Your task to perform on an android device: Open calendar and show me the second week of next month Image 0: 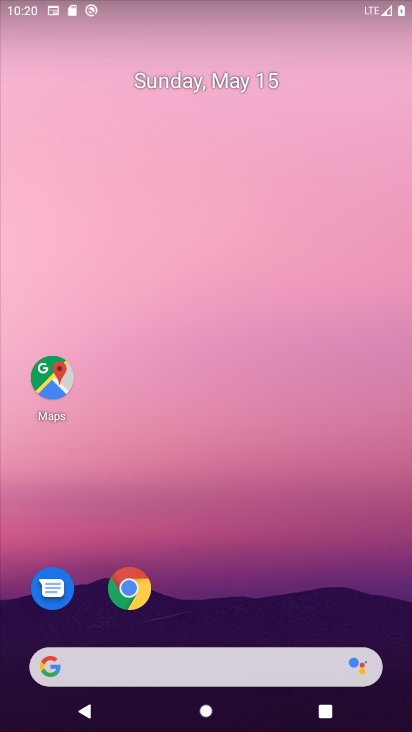
Step 0: click (198, 78)
Your task to perform on an android device: Open calendar and show me the second week of next month Image 1: 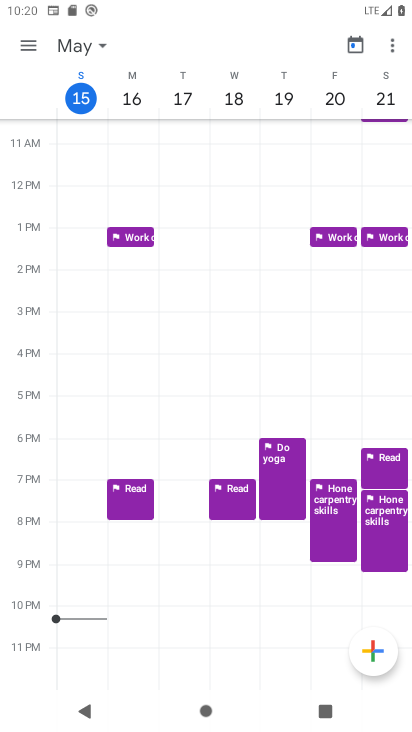
Step 1: drag from (346, 312) to (0, 309)
Your task to perform on an android device: Open calendar and show me the second week of next month Image 2: 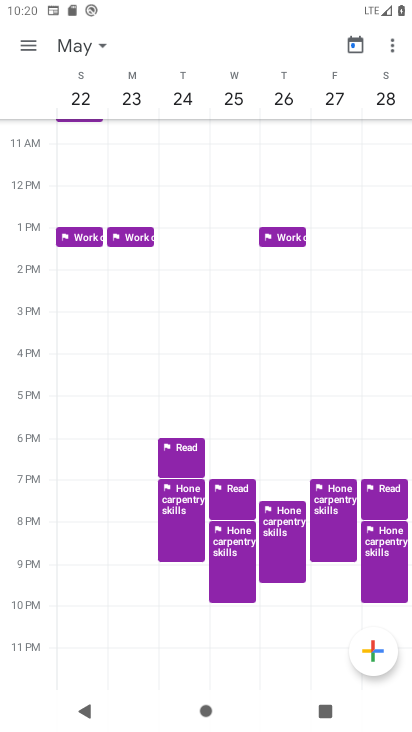
Step 2: drag from (389, 334) to (14, 351)
Your task to perform on an android device: Open calendar and show me the second week of next month Image 3: 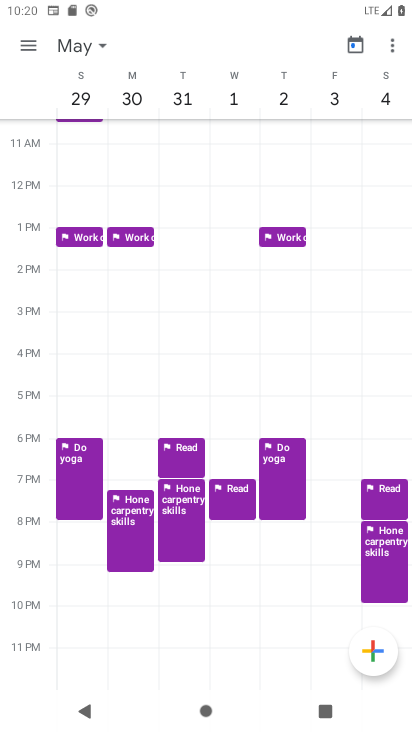
Step 3: click (81, 42)
Your task to perform on an android device: Open calendar and show me the second week of next month Image 4: 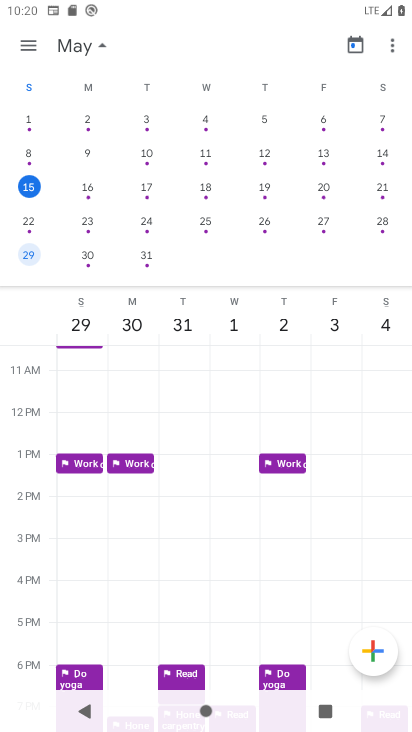
Step 4: drag from (374, 196) to (29, 245)
Your task to perform on an android device: Open calendar and show me the second week of next month Image 5: 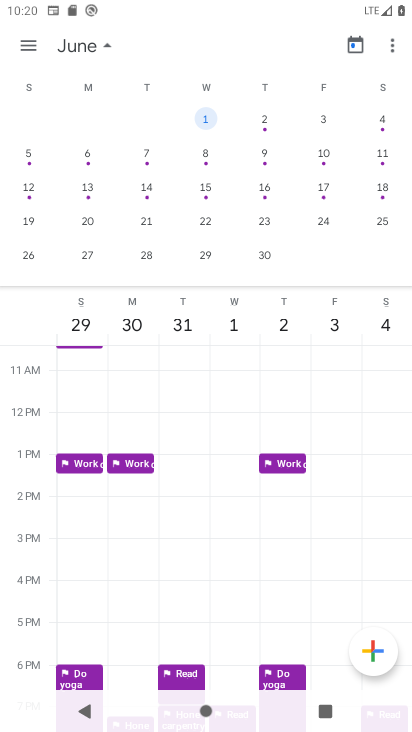
Step 5: click (208, 152)
Your task to perform on an android device: Open calendar and show me the second week of next month Image 6: 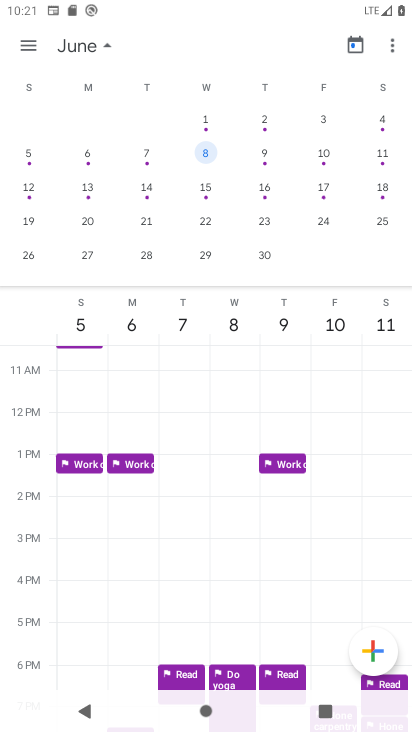
Step 6: task complete